Your task to perform on an android device: Open my contact list Image 0: 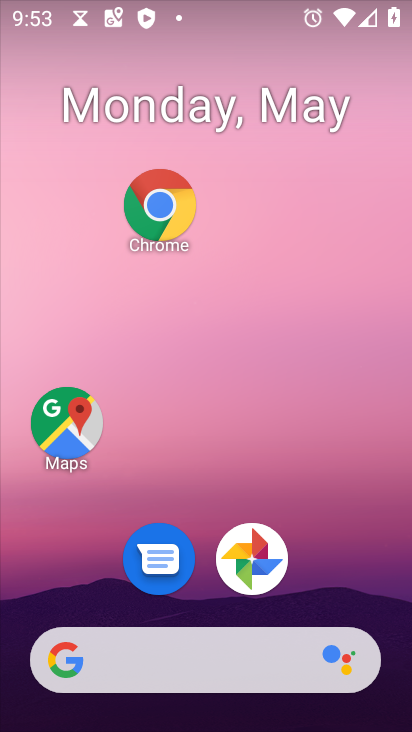
Step 0: drag from (277, 716) to (235, 78)
Your task to perform on an android device: Open my contact list Image 1: 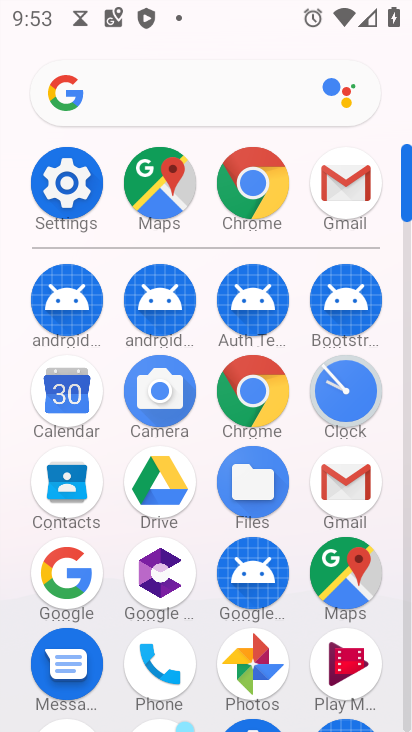
Step 1: click (69, 482)
Your task to perform on an android device: Open my contact list Image 2: 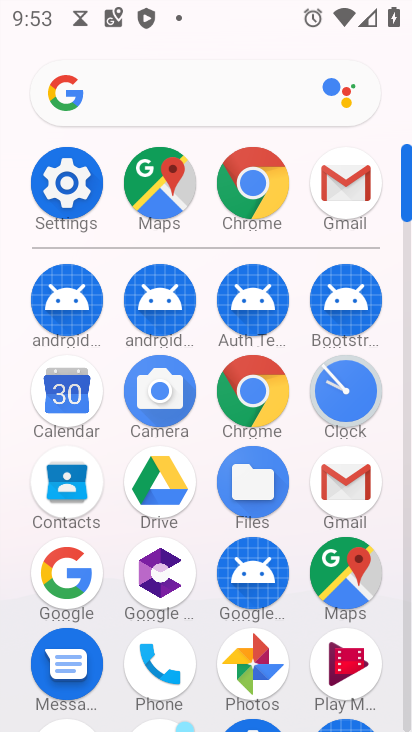
Step 2: click (69, 482)
Your task to perform on an android device: Open my contact list Image 3: 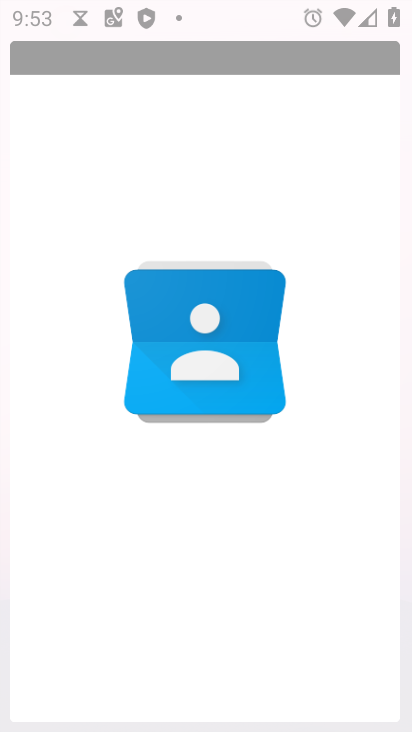
Step 3: click (65, 481)
Your task to perform on an android device: Open my contact list Image 4: 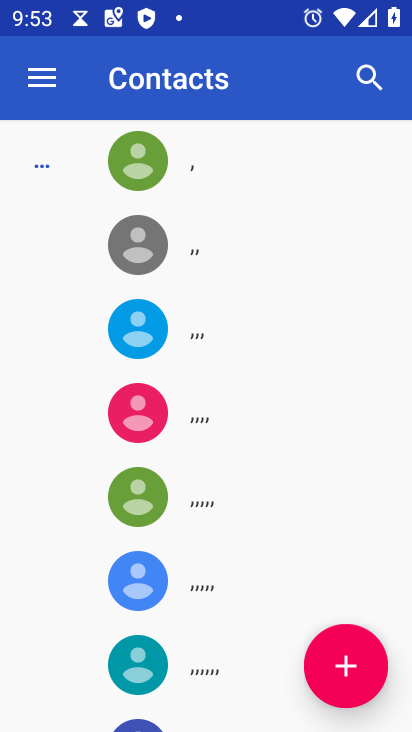
Step 4: task complete